Your task to perform on an android device: Is it going to rain this weekend? Image 0: 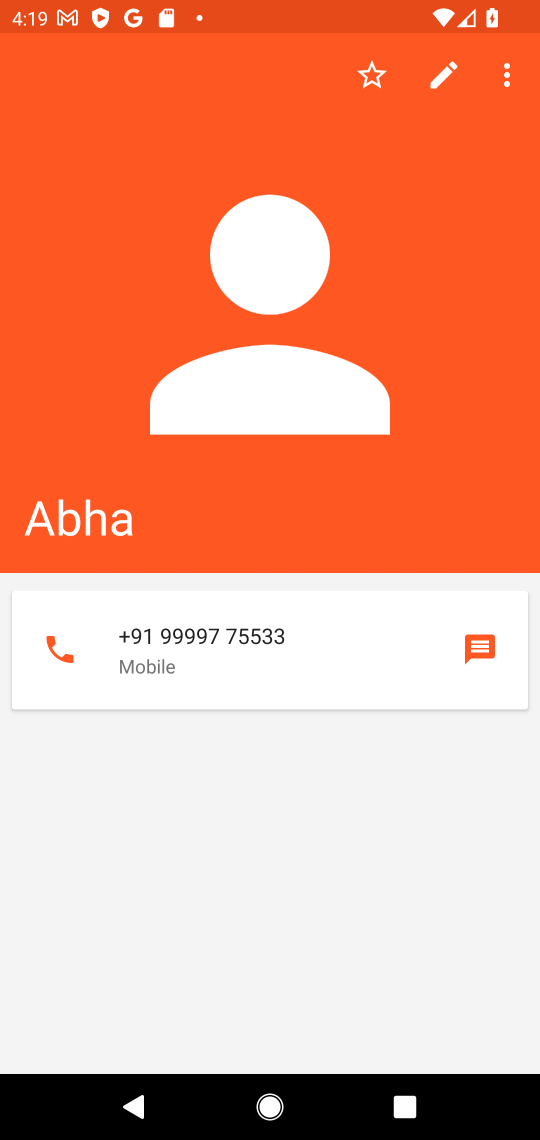
Step 0: press home button
Your task to perform on an android device: Is it going to rain this weekend? Image 1: 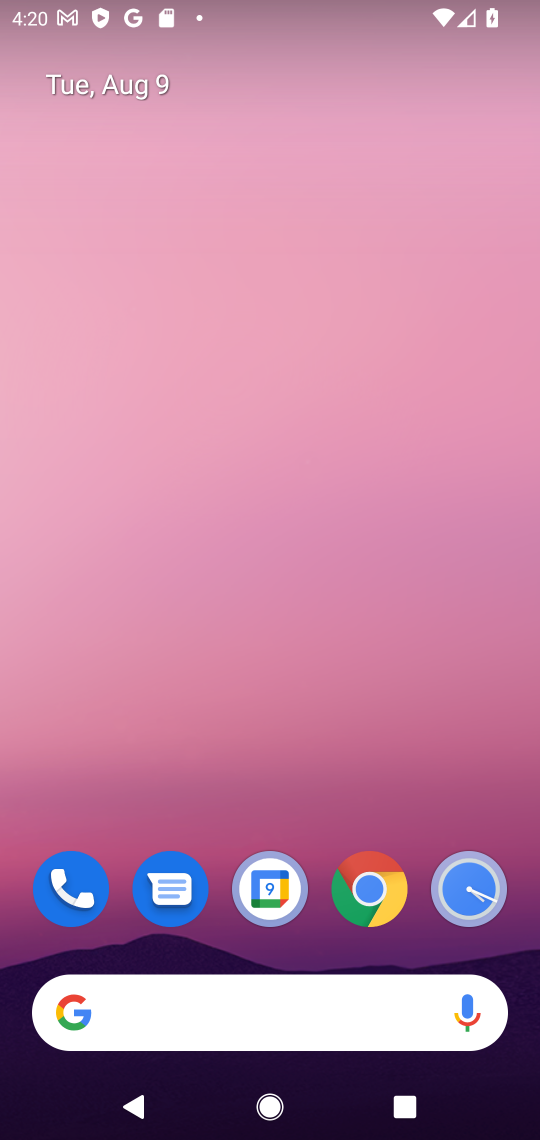
Step 1: click (259, 1008)
Your task to perform on an android device: Is it going to rain this weekend? Image 2: 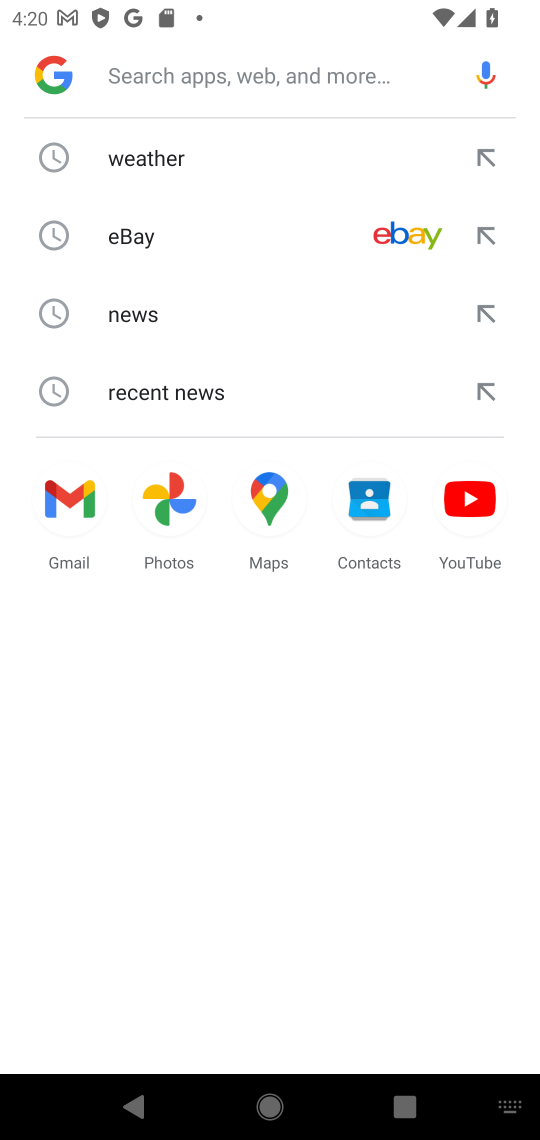
Step 2: click (162, 158)
Your task to perform on an android device: Is it going to rain this weekend? Image 3: 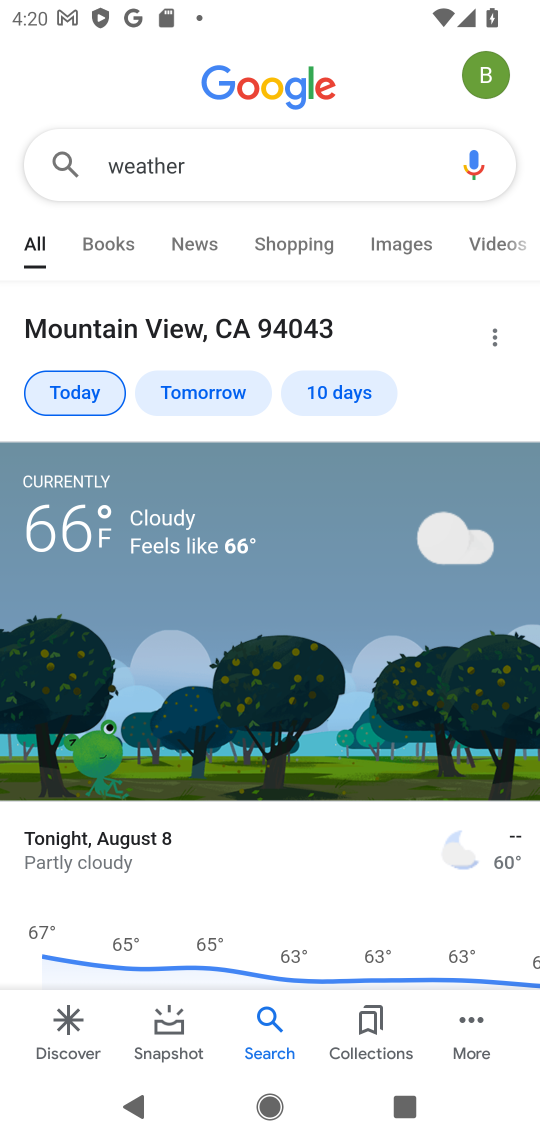
Step 3: click (349, 395)
Your task to perform on an android device: Is it going to rain this weekend? Image 4: 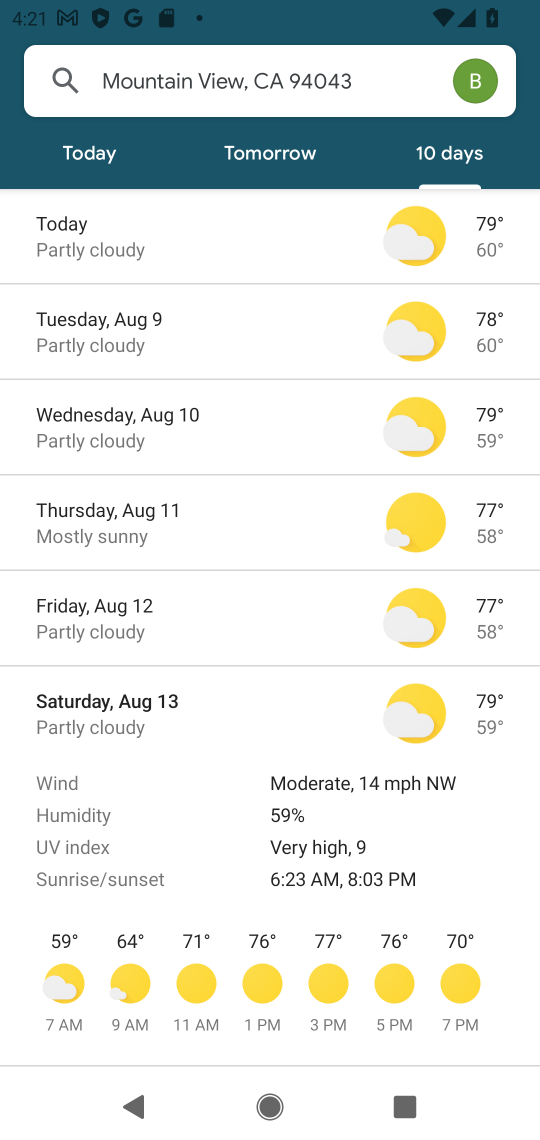
Step 4: task complete